Your task to perform on an android device: Search for Italian restaurants on Maps Image 0: 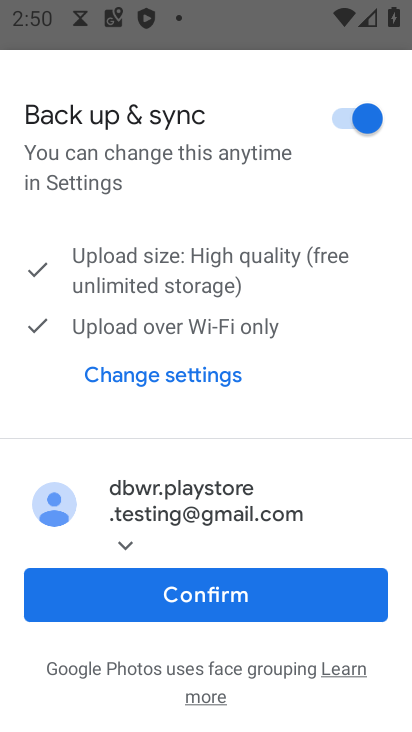
Step 0: click (239, 600)
Your task to perform on an android device: Search for Italian restaurants on Maps Image 1: 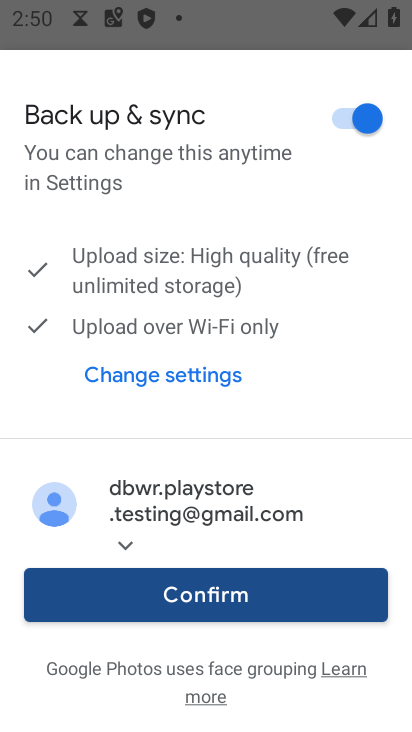
Step 1: click (241, 596)
Your task to perform on an android device: Search for Italian restaurants on Maps Image 2: 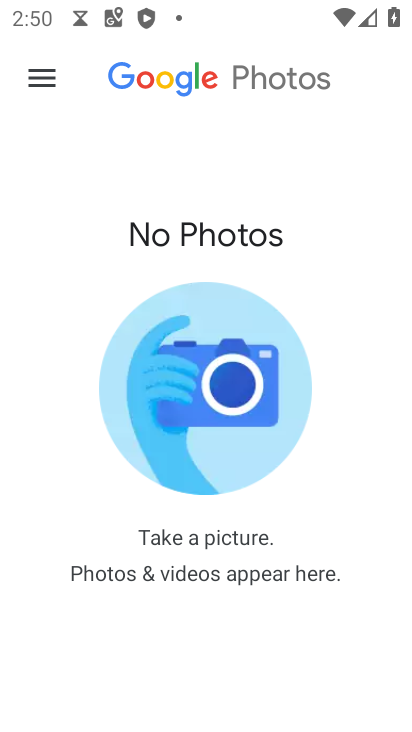
Step 2: click (238, 596)
Your task to perform on an android device: Search for Italian restaurants on Maps Image 3: 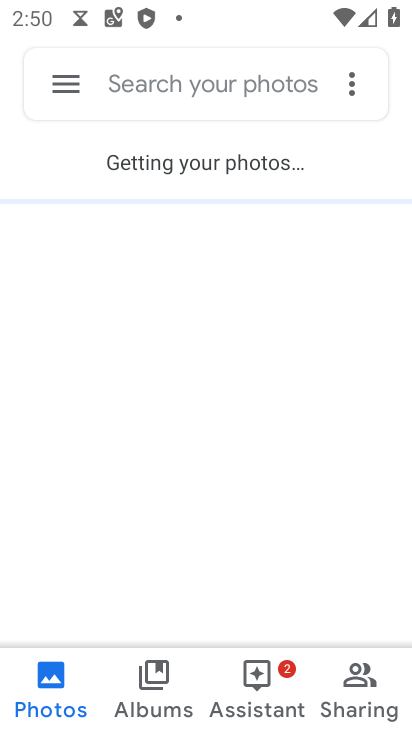
Step 3: press back button
Your task to perform on an android device: Search for Italian restaurants on Maps Image 4: 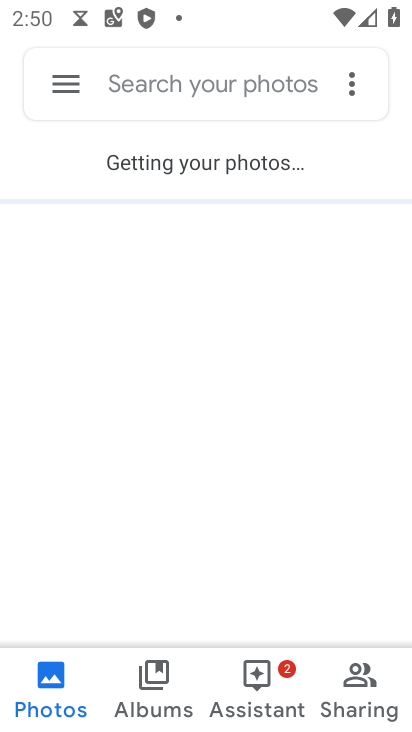
Step 4: press back button
Your task to perform on an android device: Search for Italian restaurants on Maps Image 5: 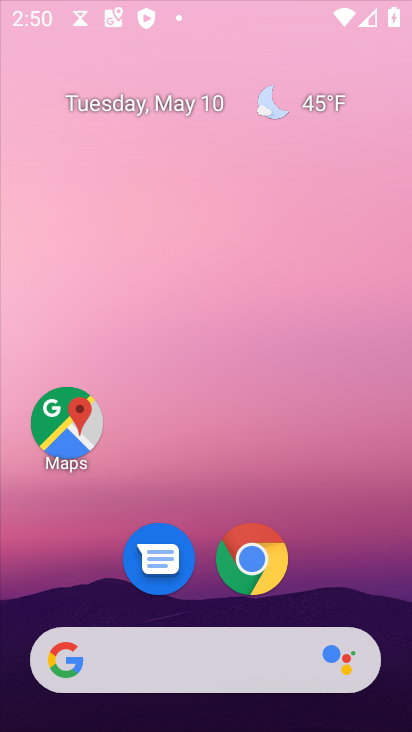
Step 5: press back button
Your task to perform on an android device: Search for Italian restaurants on Maps Image 6: 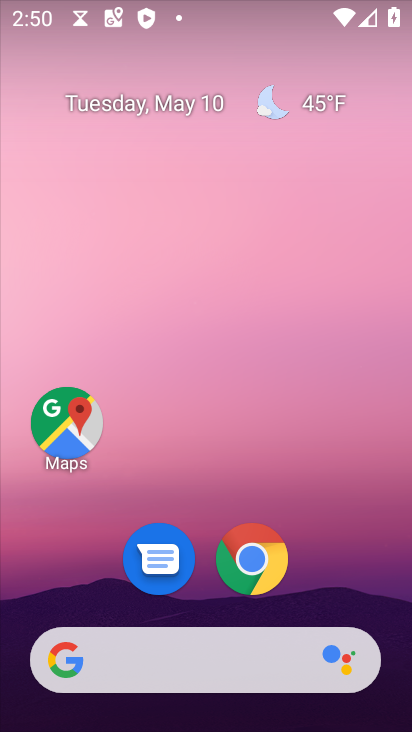
Step 6: press back button
Your task to perform on an android device: Search for Italian restaurants on Maps Image 7: 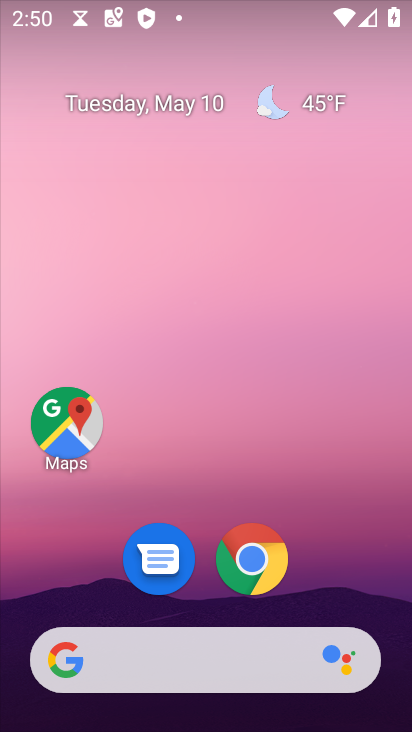
Step 7: press back button
Your task to perform on an android device: Search for Italian restaurants on Maps Image 8: 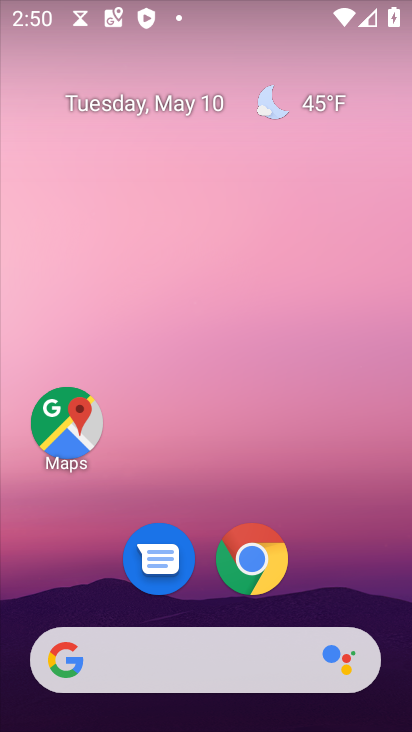
Step 8: click (79, 439)
Your task to perform on an android device: Search for Italian restaurants on Maps Image 9: 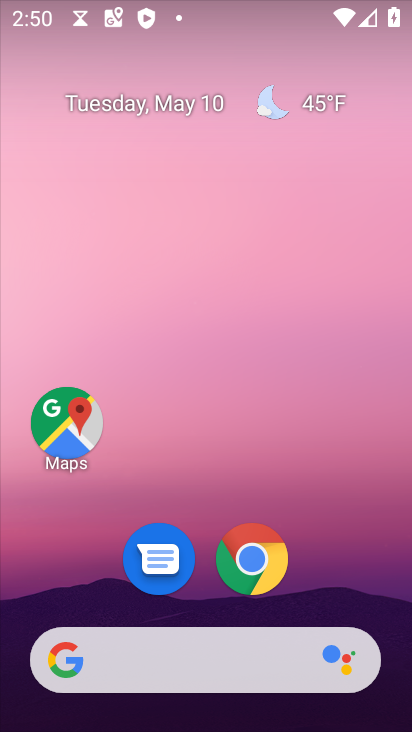
Step 9: click (41, 400)
Your task to perform on an android device: Search for Italian restaurants on Maps Image 10: 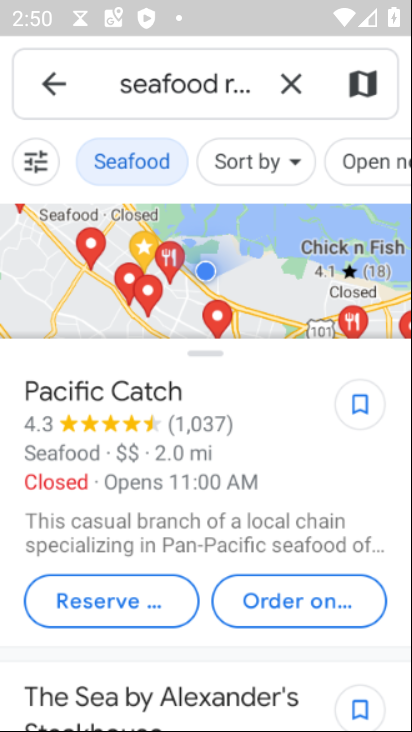
Step 10: click (63, 418)
Your task to perform on an android device: Search for Italian restaurants on Maps Image 11: 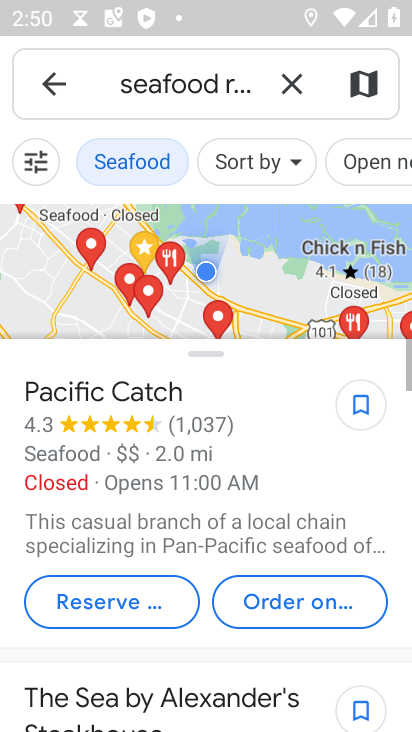
Step 11: click (295, 77)
Your task to perform on an android device: Search for Italian restaurants on Maps Image 12: 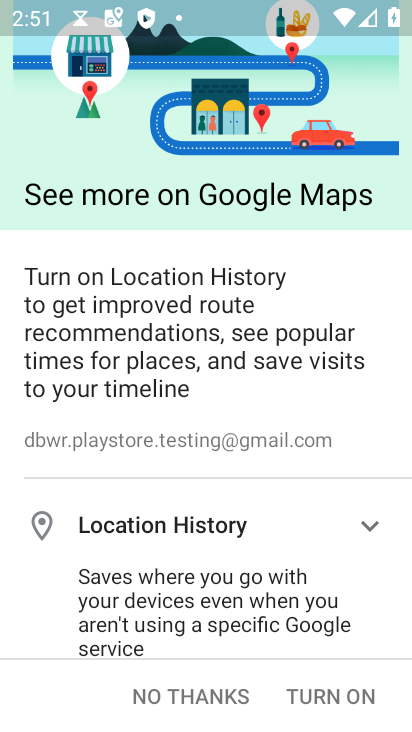
Step 12: click (327, 690)
Your task to perform on an android device: Search for Italian restaurants on Maps Image 13: 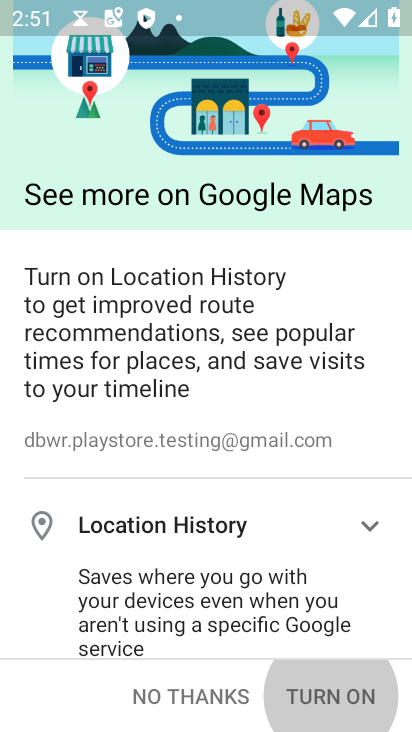
Step 13: click (328, 690)
Your task to perform on an android device: Search for Italian restaurants on Maps Image 14: 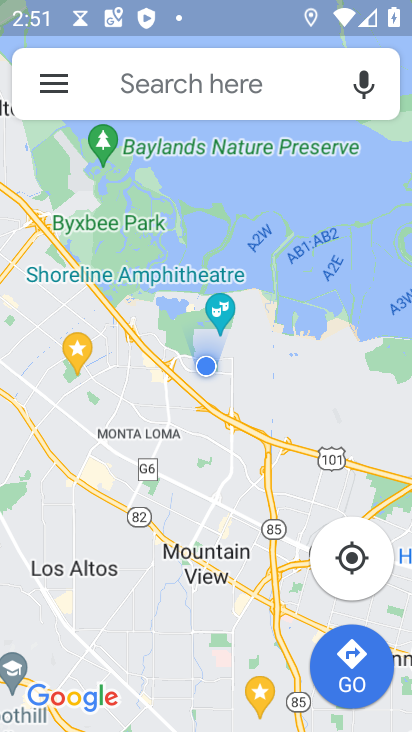
Step 14: click (132, 86)
Your task to perform on an android device: Search for Italian restaurants on Maps Image 15: 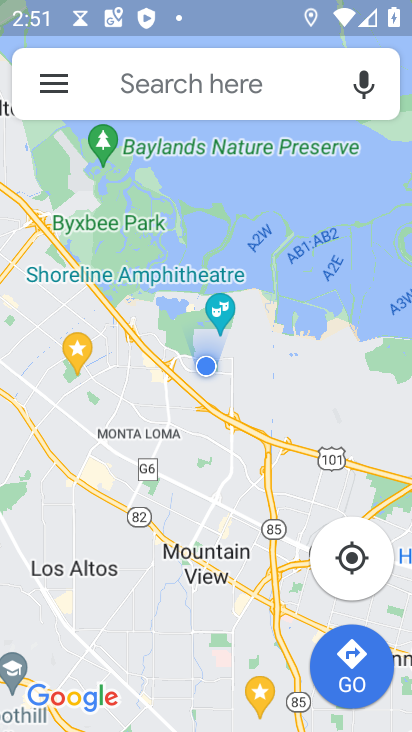
Step 15: click (132, 86)
Your task to perform on an android device: Search for Italian restaurants on Maps Image 16: 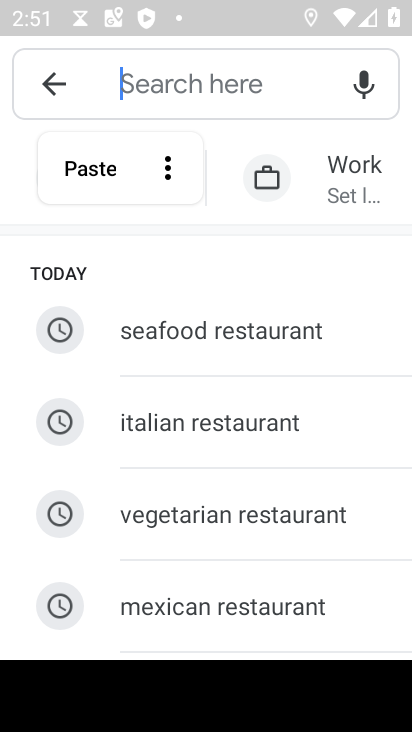
Step 16: click (175, 423)
Your task to perform on an android device: Search for Italian restaurants on Maps Image 17: 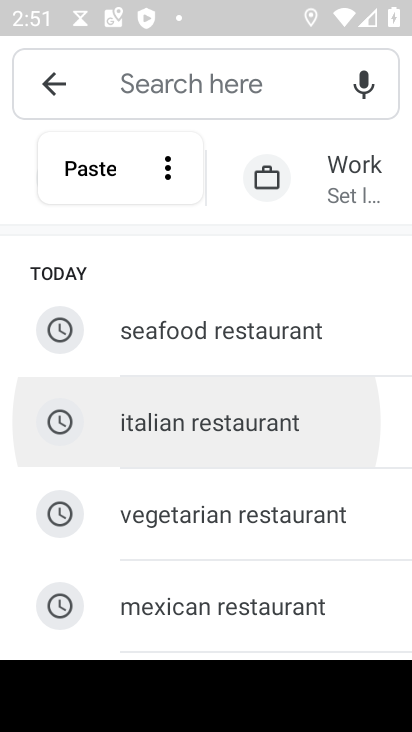
Step 17: click (175, 423)
Your task to perform on an android device: Search for Italian restaurants on Maps Image 18: 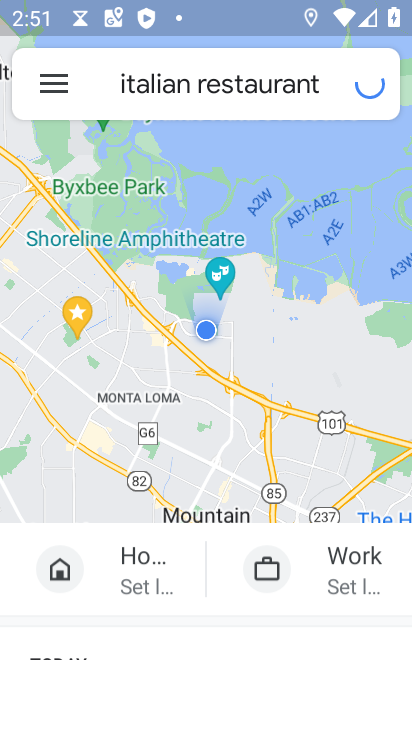
Step 18: click (174, 424)
Your task to perform on an android device: Search for Italian restaurants on Maps Image 19: 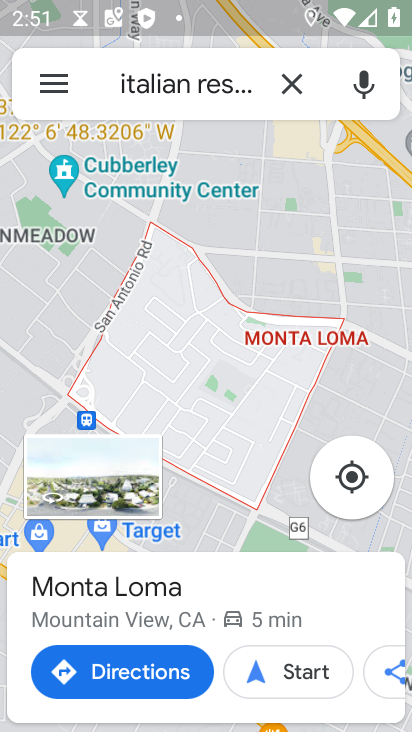
Step 19: task complete